Your task to perform on an android device: Go to network settings Image 0: 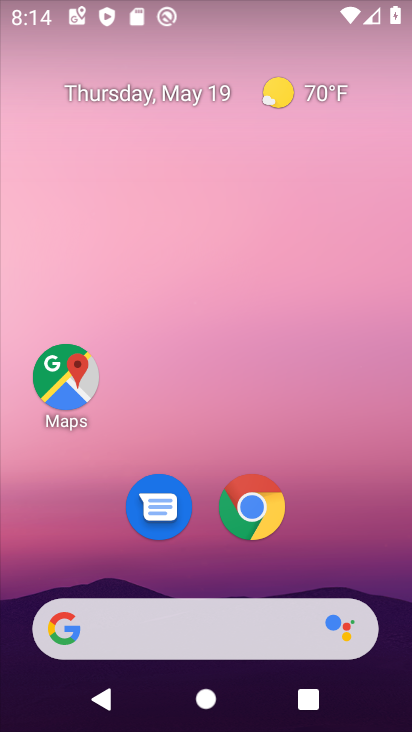
Step 0: drag from (201, 570) to (190, 166)
Your task to perform on an android device: Go to network settings Image 1: 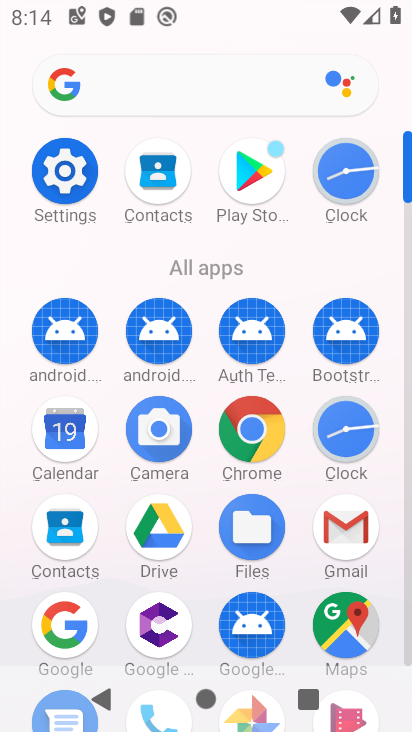
Step 1: click (42, 185)
Your task to perform on an android device: Go to network settings Image 2: 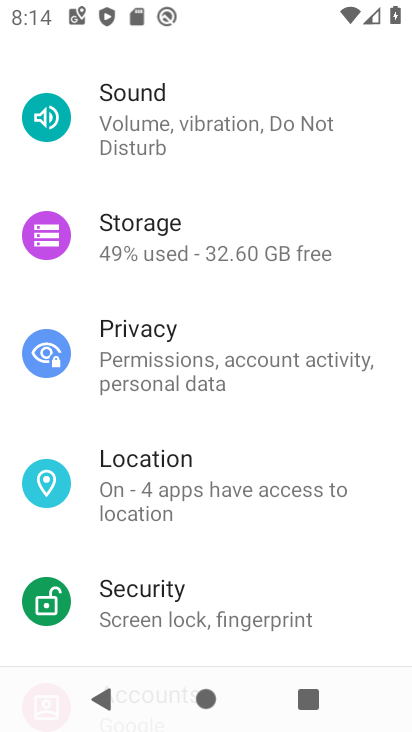
Step 2: drag from (156, 182) to (219, 483)
Your task to perform on an android device: Go to network settings Image 3: 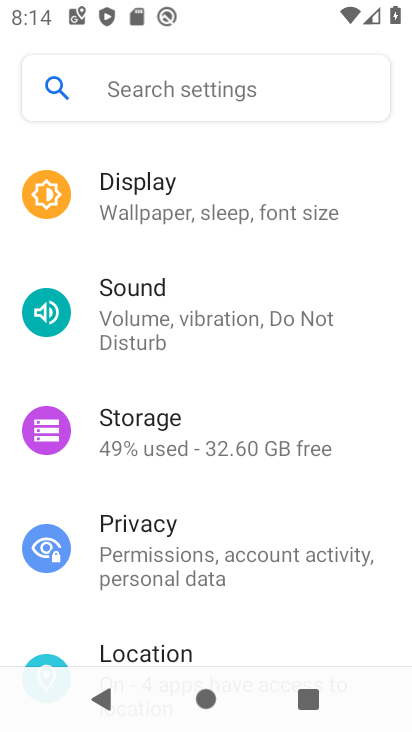
Step 3: drag from (200, 159) to (243, 538)
Your task to perform on an android device: Go to network settings Image 4: 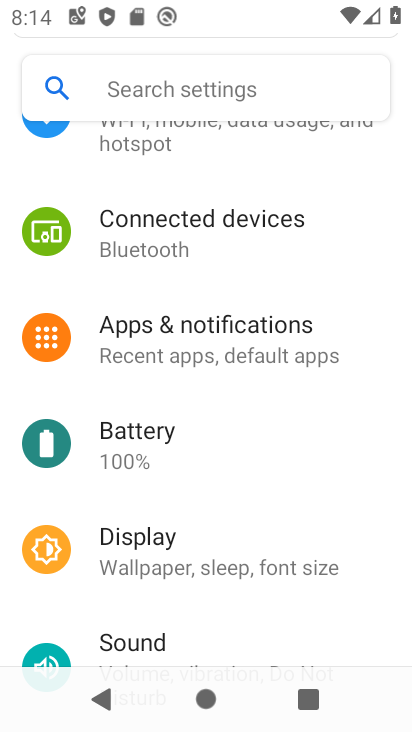
Step 4: drag from (245, 223) to (279, 446)
Your task to perform on an android device: Go to network settings Image 5: 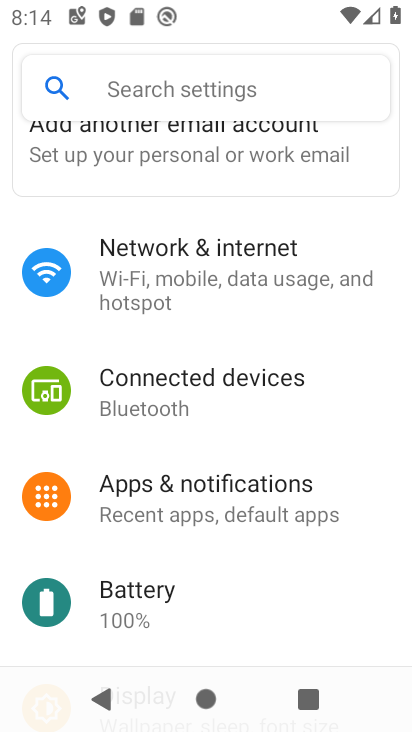
Step 5: click (230, 194)
Your task to perform on an android device: Go to network settings Image 6: 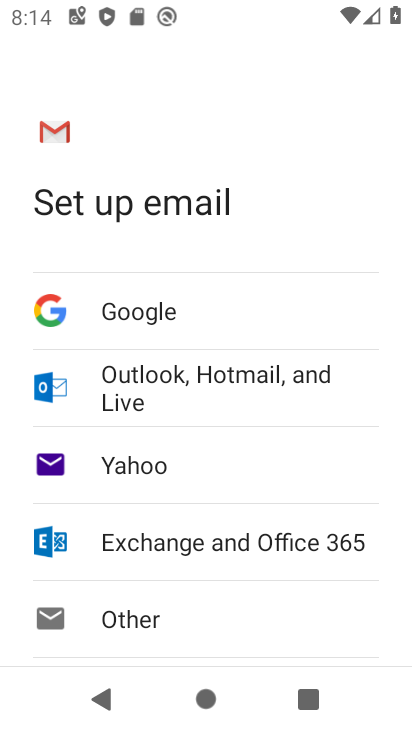
Step 6: press back button
Your task to perform on an android device: Go to network settings Image 7: 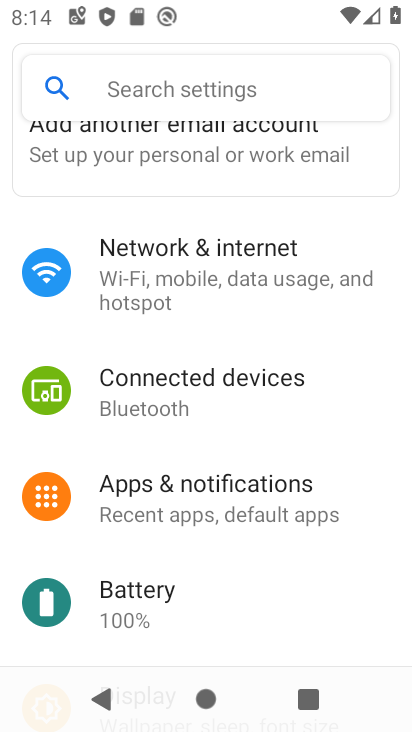
Step 7: click (206, 281)
Your task to perform on an android device: Go to network settings Image 8: 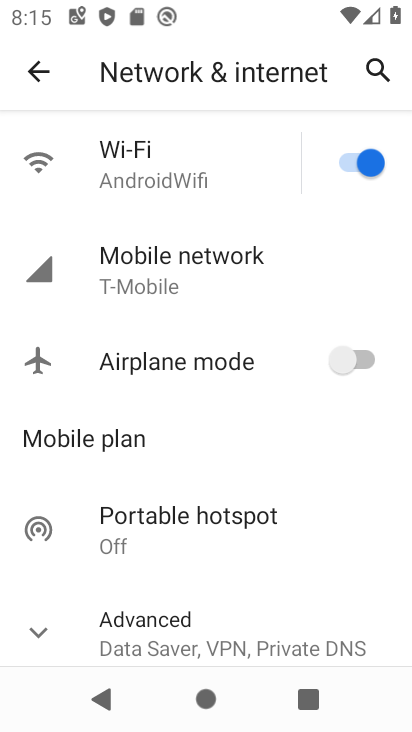
Step 8: task complete